Your task to perform on an android device: turn on airplane mode Image 0: 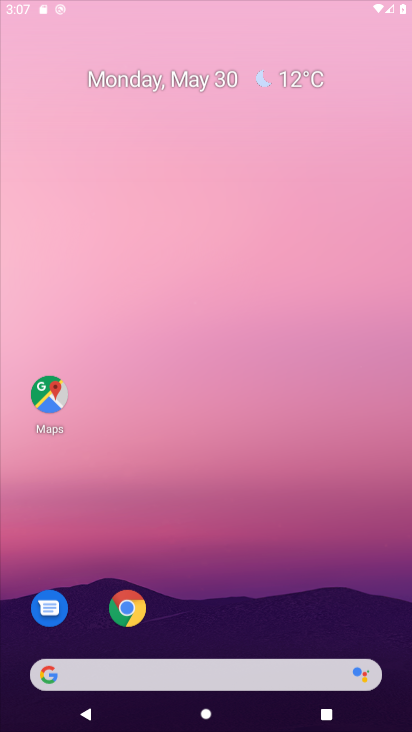
Step 0: click (46, 401)
Your task to perform on an android device: turn on airplane mode Image 1: 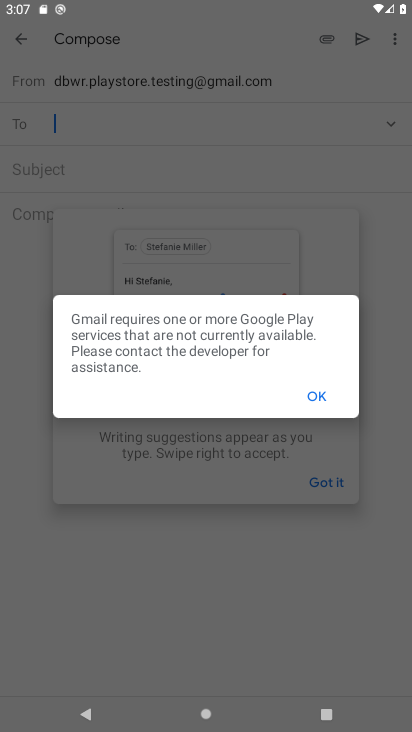
Step 1: press home button
Your task to perform on an android device: turn on airplane mode Image 2: 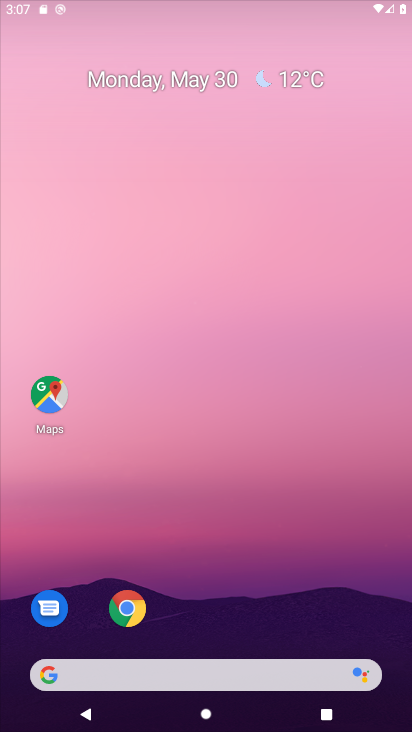
Step 2: drag from (335, 359) to (215, 27)
Your task to perform on an android device: turn on airplane mode Image 3: 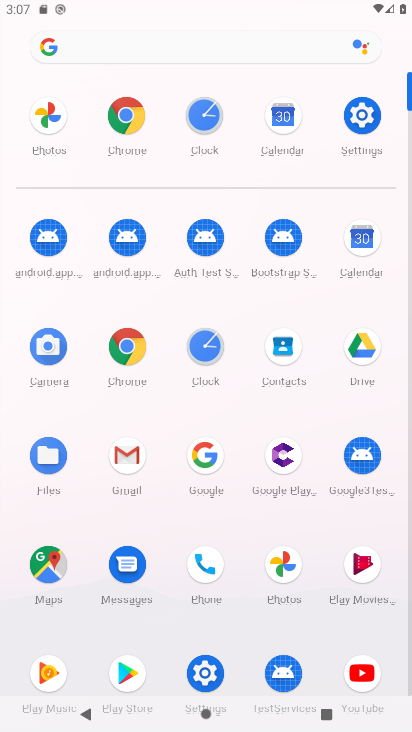
Step 3: click (358, 124)
Your task to perform on an android device: turn on airplane mode Image 4: 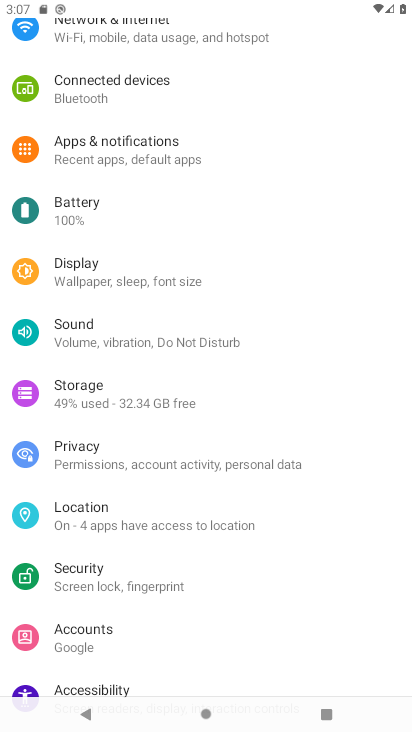
Step 4: drag from (216, 96) to (246, 462)
Your task to perform on an android device: turn on airplane mode Image 5: 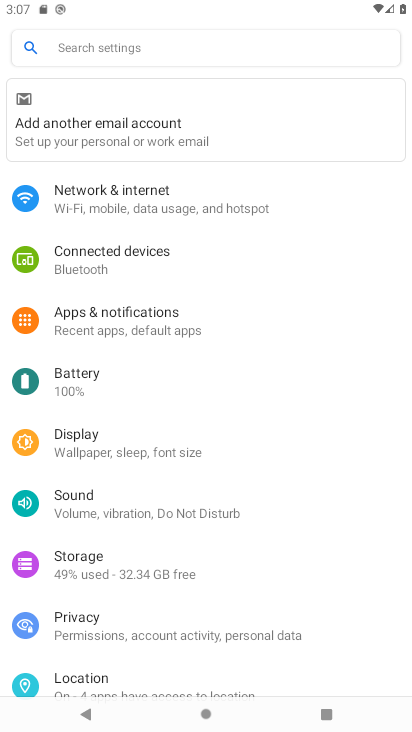
Step 5: click (179, 204)
Your task to perform on an android device: turn on airplane mode Image 6: 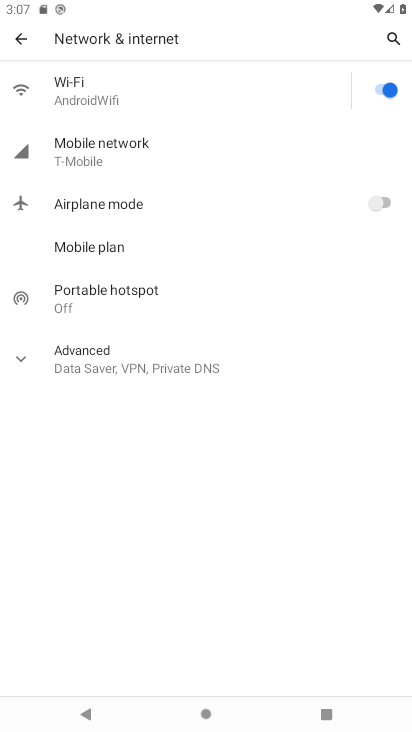
Step 6: click (376, 201)
Your task to perform on an android device: turn on airplane mode Image 7: 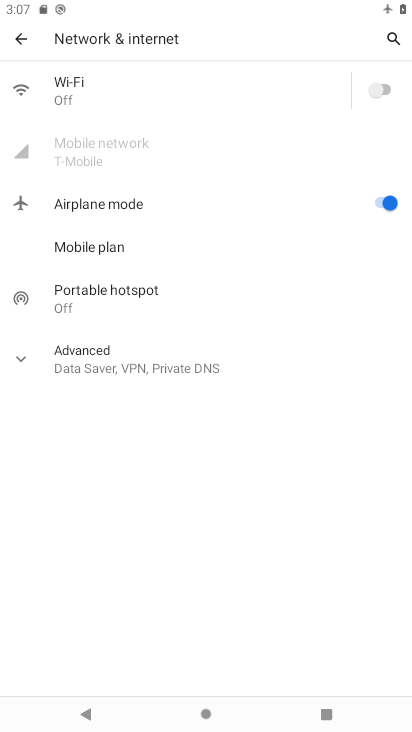
Step 7: task complete